Your task to perform on an android device: Open Youtube and go to "Your channel" Image 0: 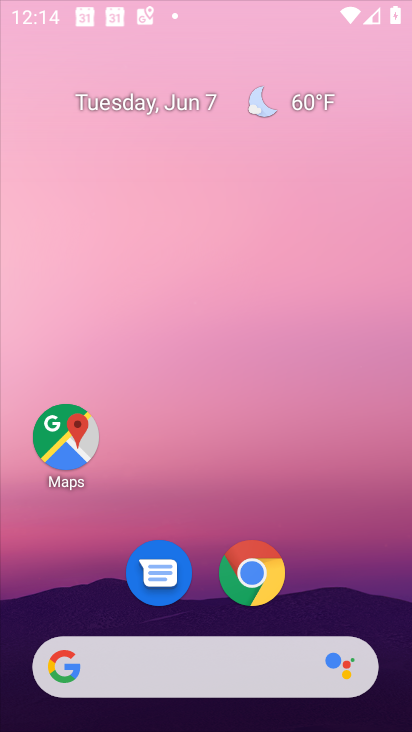
Step 0: press home button
Your task to perform on an android device: Open Youtube and go to "Your channel" Image 1: 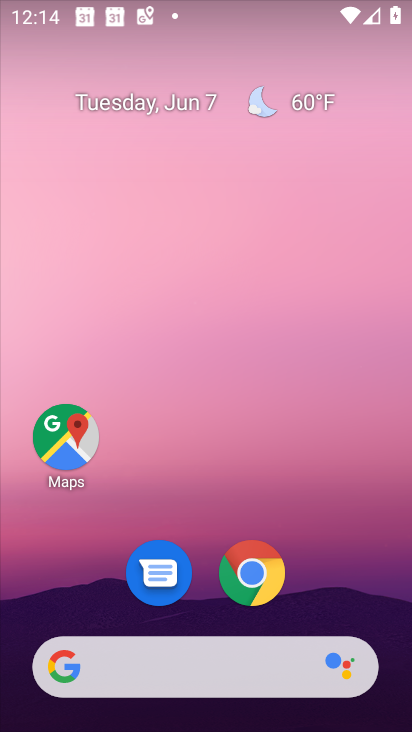
Step 1: drag from (326, 599) to (301, 11)
Your task to perform on an android device: Open Youtube and go to "Your channel" Image 2: 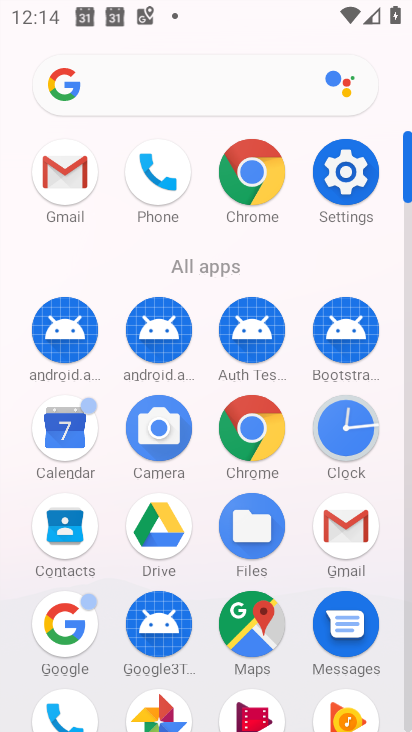
Step 2: click (403, 690)
Your task to perform on an android device: Open Youtube and go to "Your channel" Image 3: 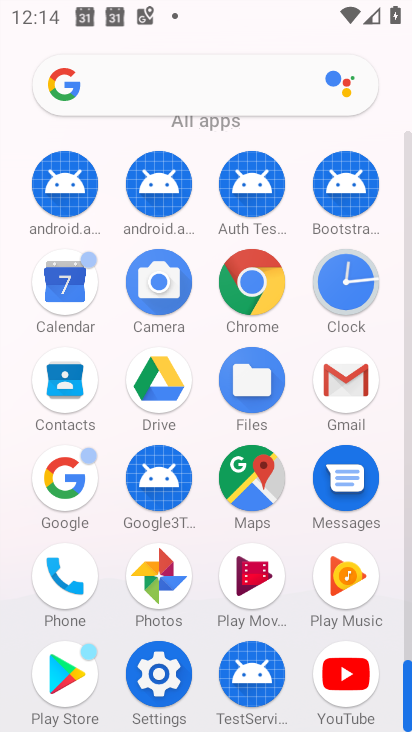
Step 3: click (355, 678)
Your task to perform on an android device: Open Youtube and go to "Your channel" Image 4: 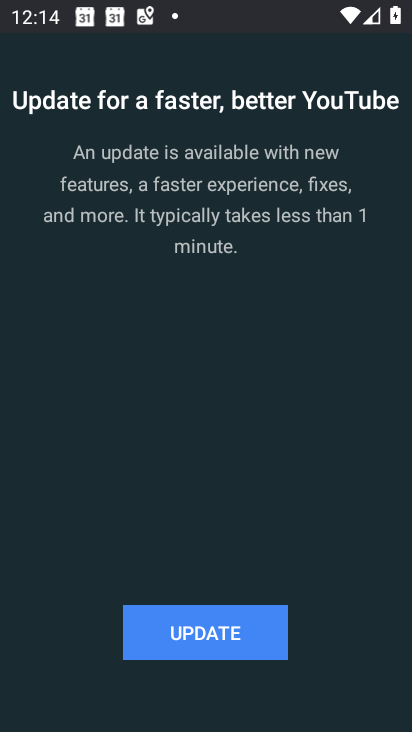
Step 4: click (240, 616)
Your task to perform on an android device: Open Youtube and go to "Your channel" Image 5: 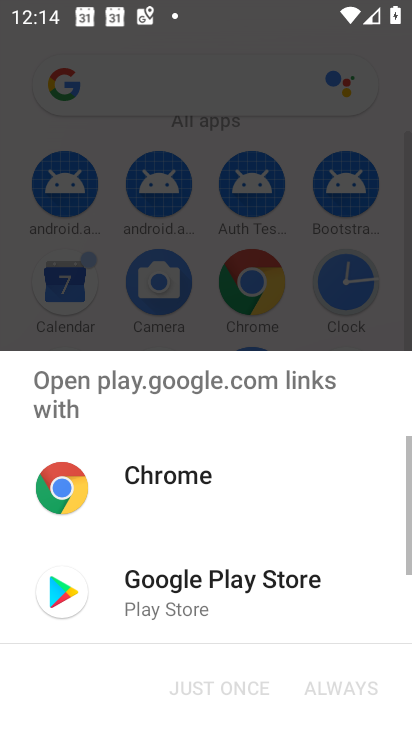
Step 5: click (161, 594)
Your task to perform on an android device: Open Youtube and go to "Your channel" Image 6: 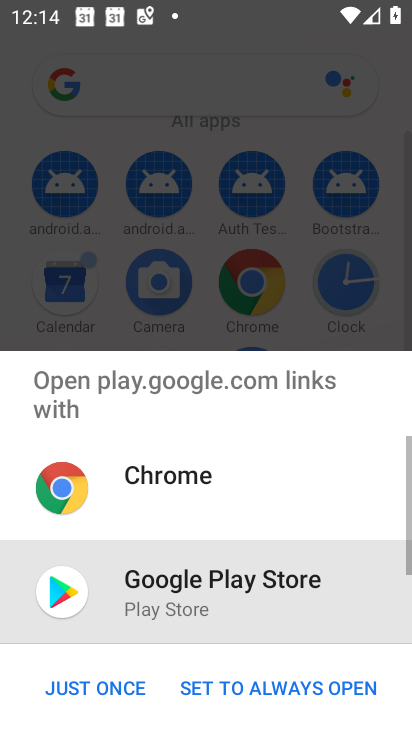
Step 6: click (90, 683)
Your task to perform on an android device: Open Youtube and go to "Your channel" Image 7: 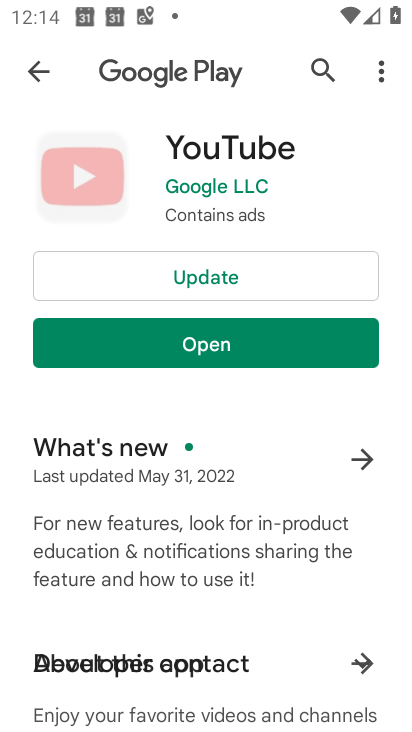
Step 7: click (141, 277)
Your task to perform on an android device: Open Youtube and go to "Your channel" Image 8: 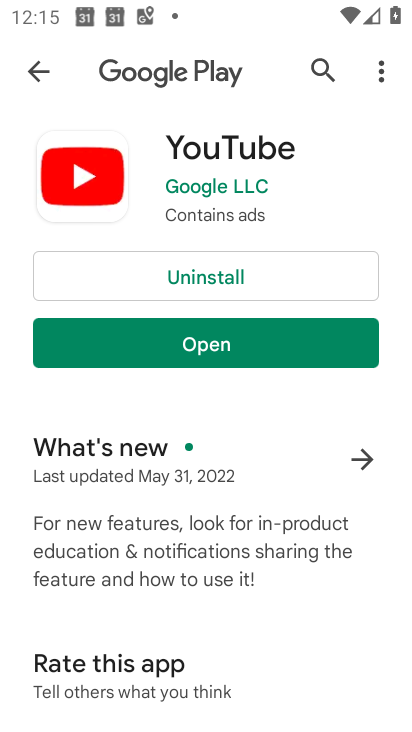
Step 8: click (265, 331)
Your task to perform on an android device: Open Youtube and go to "Your channel" Image 9: 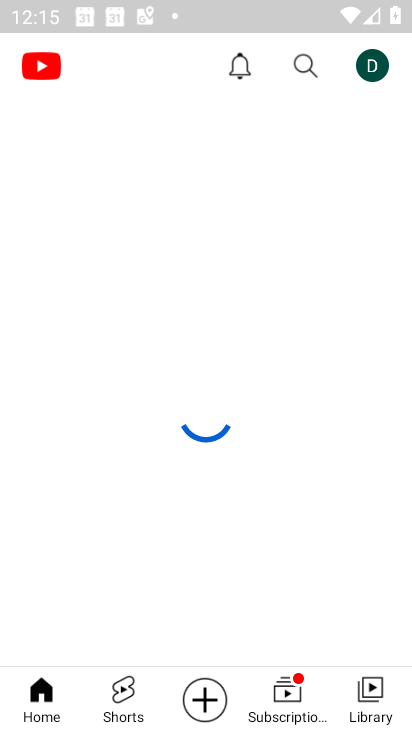
Step 9: click (377, 60)
Your task to perform on an android device: Open Youtube and go to "Your channel" Image 10: 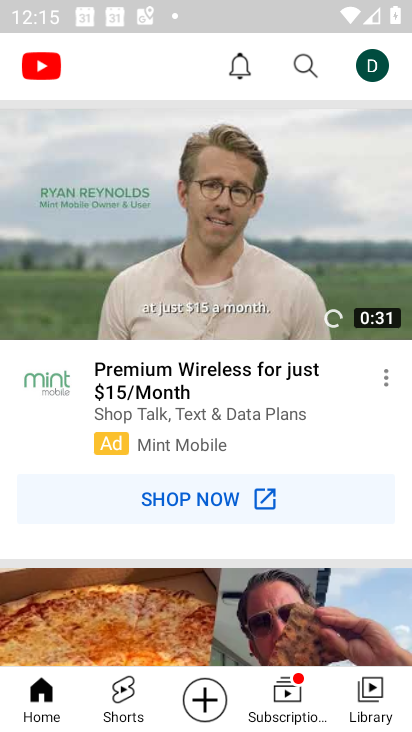
Step 10: click (377, 60)
Your task to perform on an android device: Open Youtube and go to "Your channel" Image 11: 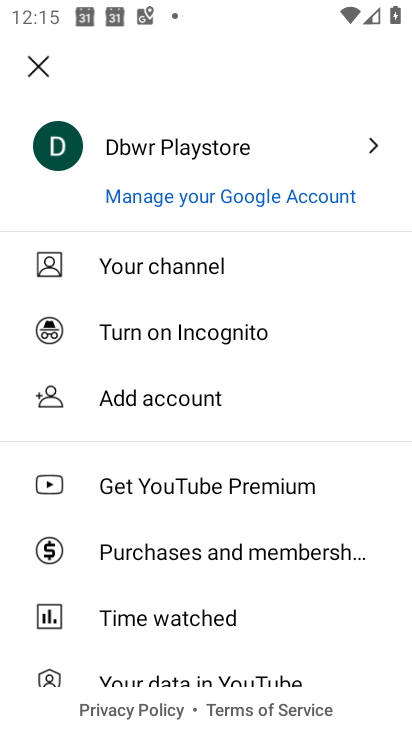
Step 11: click (201, 276)
Your task to perform on an android device: Open Youtube and go to "Your channel" Image 12: 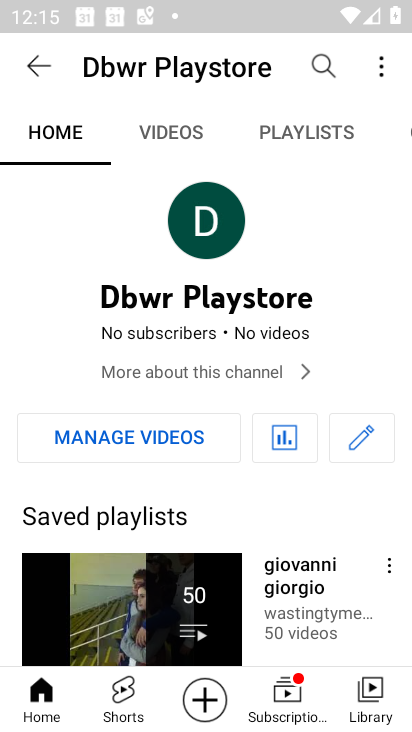
Step 12: task complete